Your task to perform on an android device: turn off priority inbox in the gmail app Image 0: 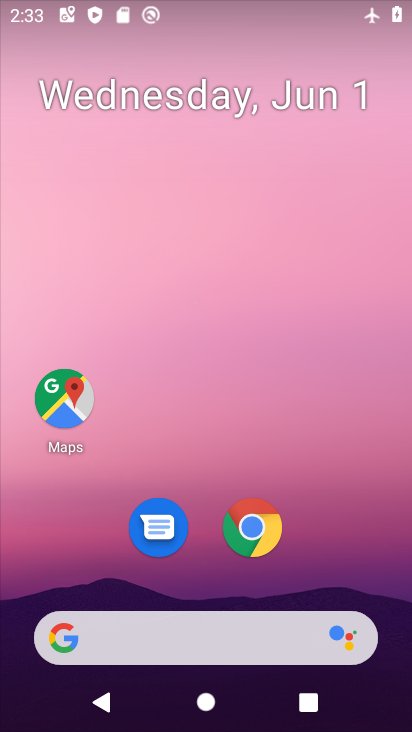
Step 0: drag from (350, 572) to (264, 100)
Your task to perform on an android device: turn off priority inbox in the gmail app Image 1: 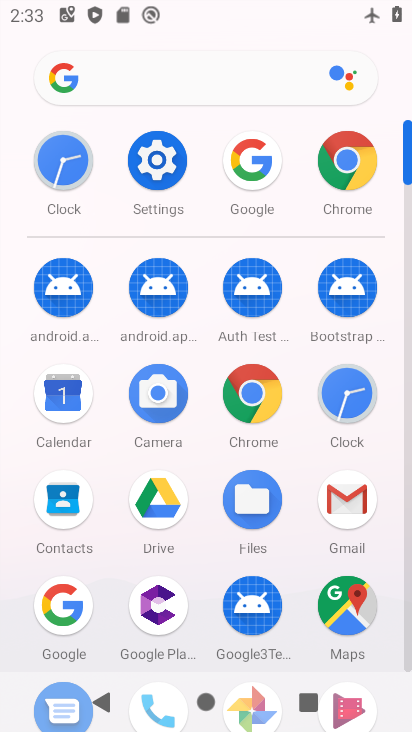
Step 1: click (347, 497)
Your task to perform on an android device: turn off priority inbox in the gmail app Image 2: 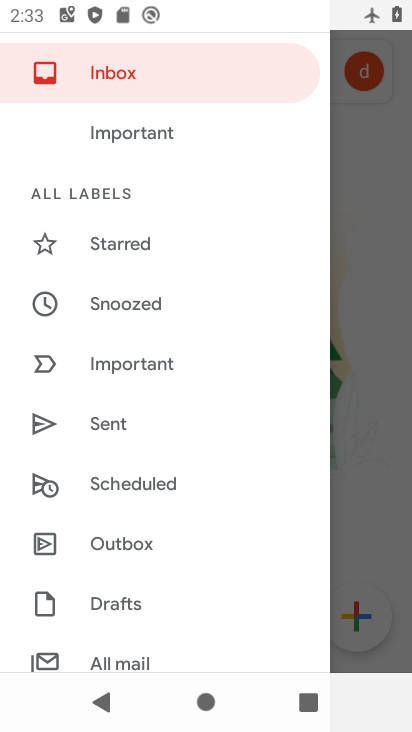
Step 2: drag from (160, 579) to (198, 481)
Your task to perform on an android device: turn off priority inbox in the gmail app Image 3: 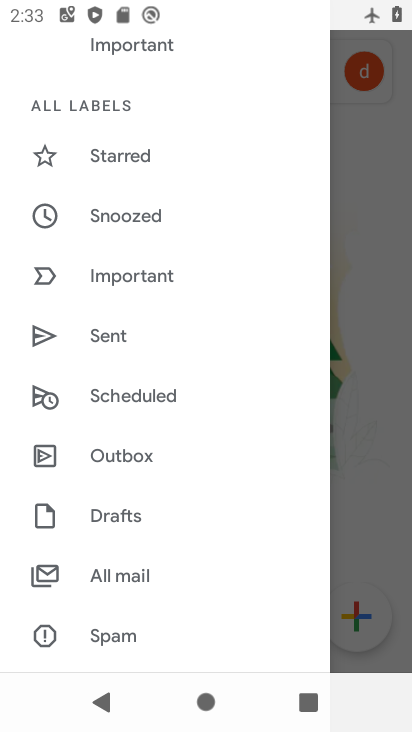
Step 3: drag from (167, 548) to (185, 487)
Your task to perform on an android device: turn off priority inbox in the gmail app Image 4: 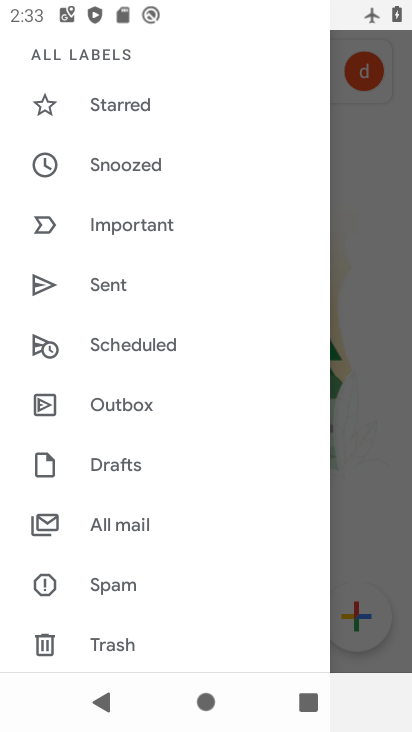
Step 4: drag from (138, 553) to (153, 471)
Your task to perform on an android device: turn off priority inbox in the gmail app Image 5: 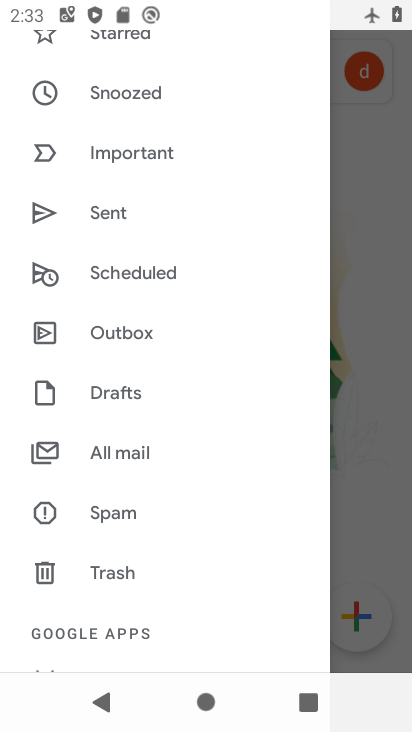
Step 5: drag from (124, 533) to (164, 467)
Your task to perform on an android device: turn off priority inbox in the gmail app Image 6: 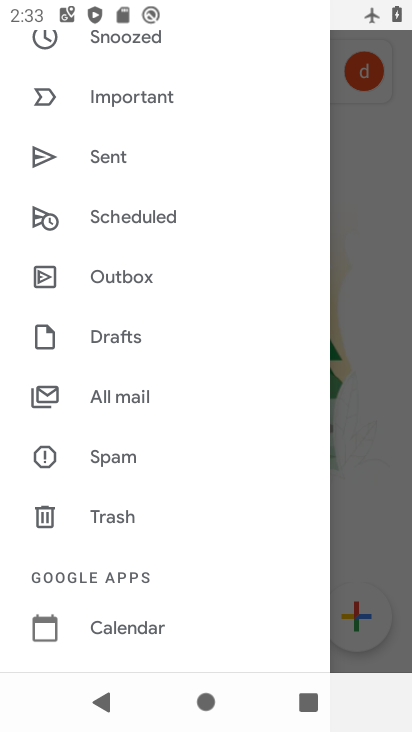
Step 6: drag from (123, 604) to (166, 512)
Your task to perform on an android device: turn off priority inbox in the gmail app Image 7: 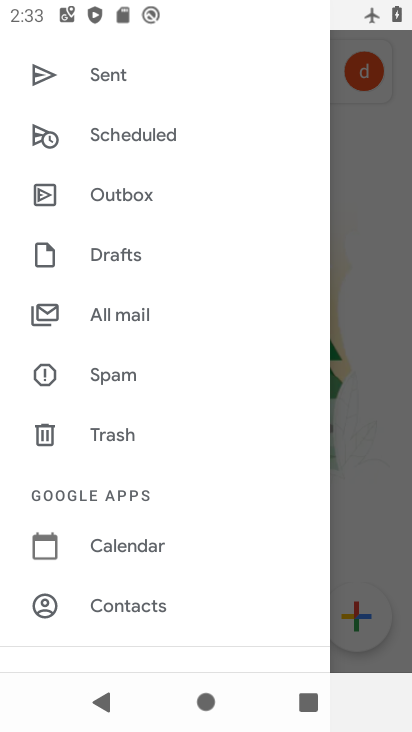
Step 7: drag from (115, 570) to (193, 457)
Your task to perform on an android device: turn off priority inbox in the gmail app Image 8: 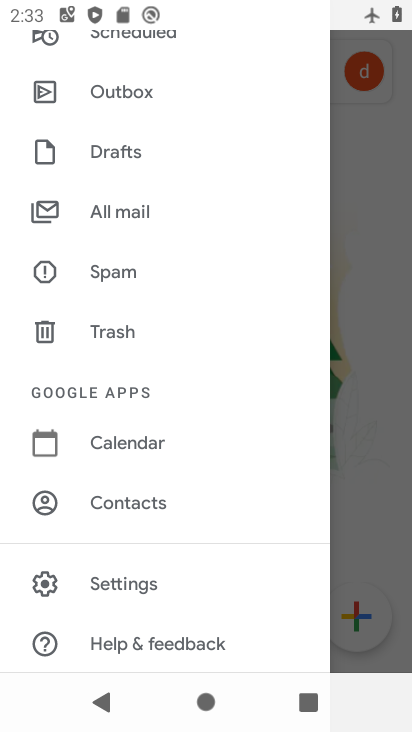
Step 8: click (119, 590)
Your task to perform on an android device: turn off priority inbox in the gmail app Image 9: 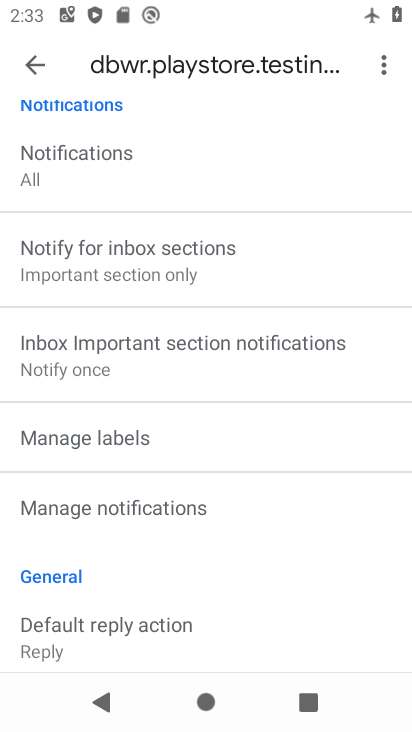
Step 9: drag from (184, 174) to (165, 356)
Your task to perform on an android device: turn off priority inbox in the gmail app Image 10: 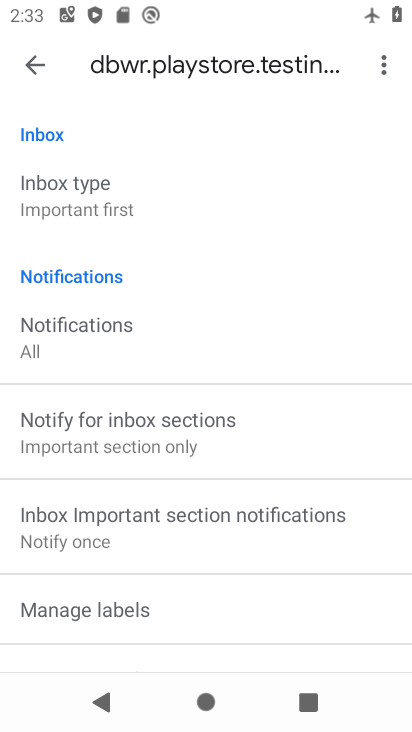
Step 10: drag from (181, 231) to (196, 341)
Your task to perform on an android device: turn off priority inbox in the gmail app Image 11: 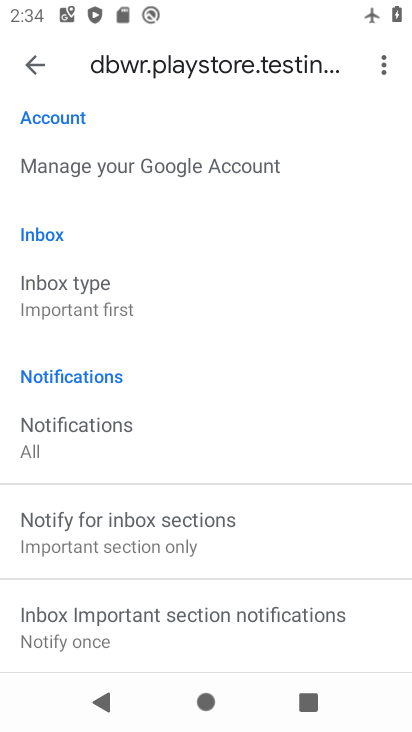
Step 11: click (105, 308)
Your task to perform on an android device: turn off priority inbox in the gmail app Image 12: 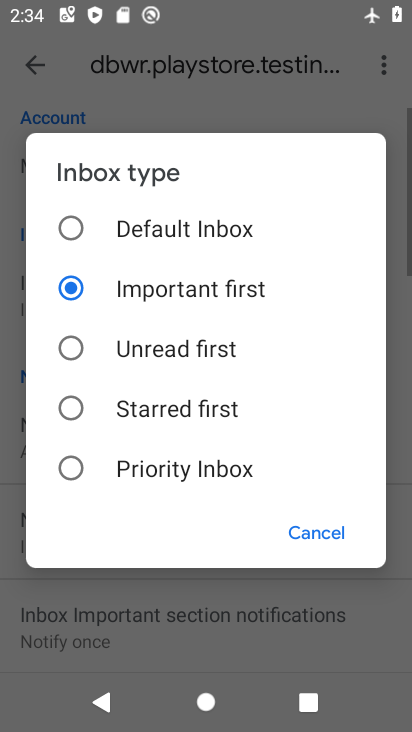
Step 12: click (70, 286)
Your task to perform on an android device: turn off priority inbox in the gmail app Image 13: 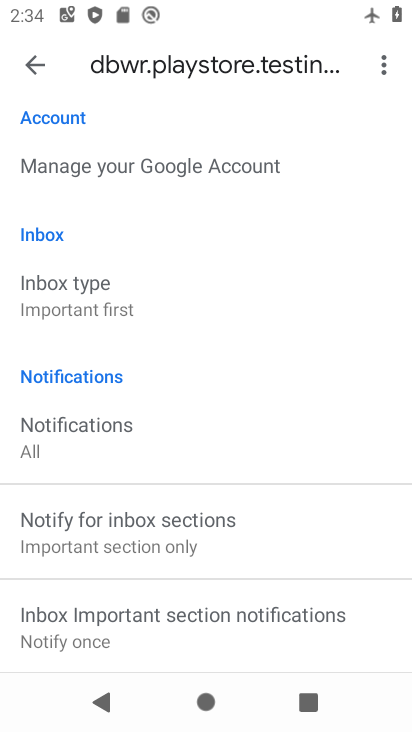
Step 13: task complete